Your task to perform on an android device: turn on wifi Image 0: 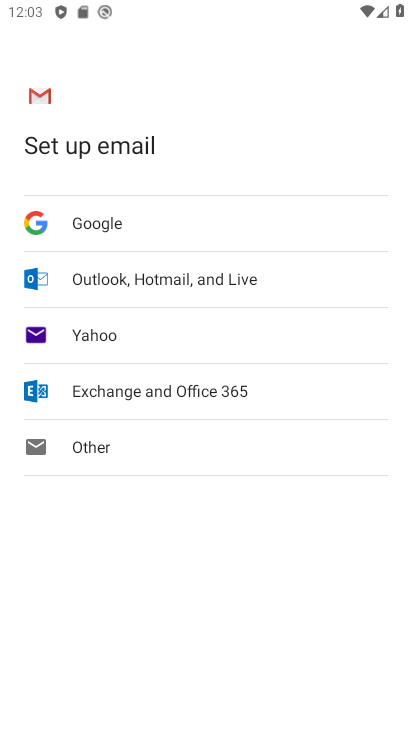
Step 0: press home button
Your task to perform on an android device: turn on wifi Image 1: 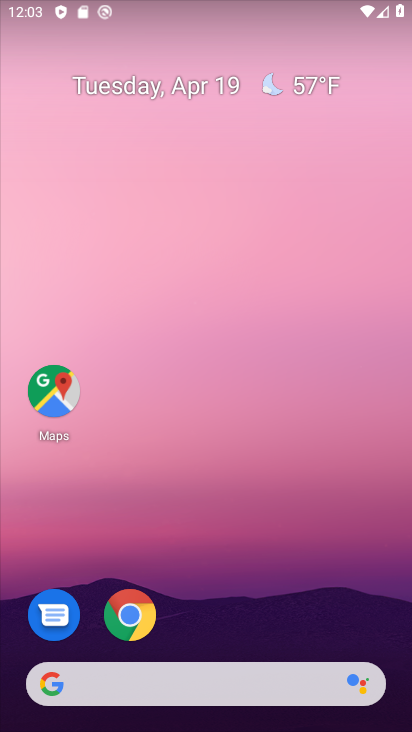
Step 1: drag from (196, 456) to (196, 140)
Your task to perform on an android device: turn on wifi Image 2: 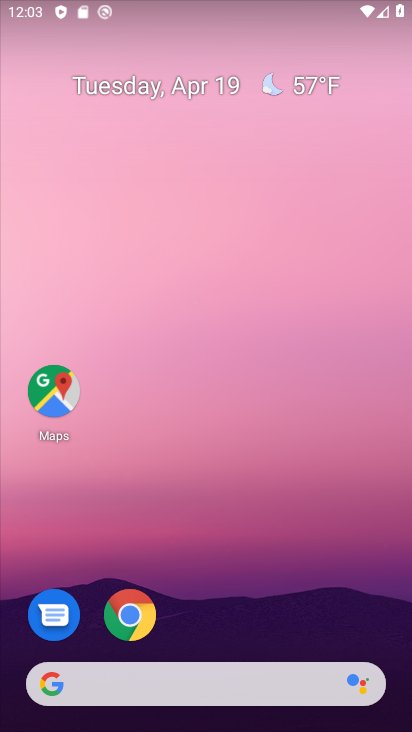
Step 2: drag from (226, 630) to (233, 89)
Your task to perform on an android device: turn on wifi Image 3: 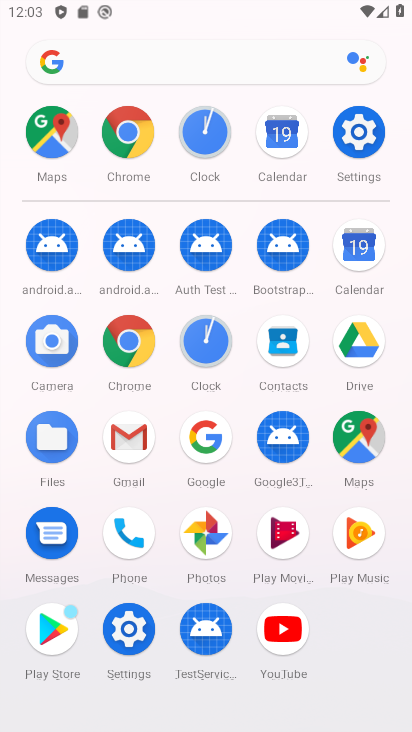
Step 3: click (362, 138)
Your task to perform on an android device: turn on wifi Image 4: 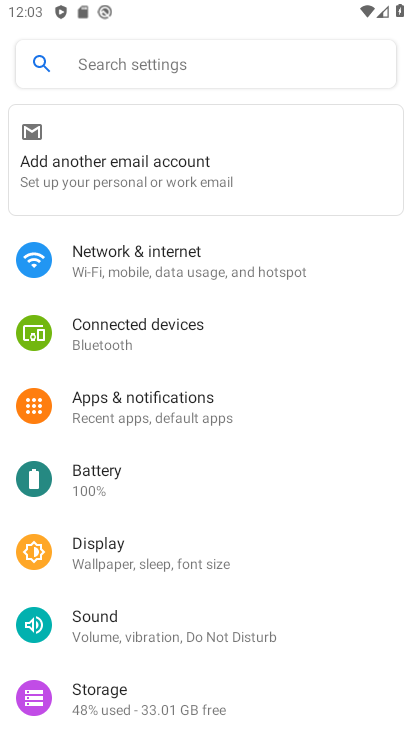
Step 4: click (159, 250)
Your task to perform on an android device: turn on wifi Image 5: 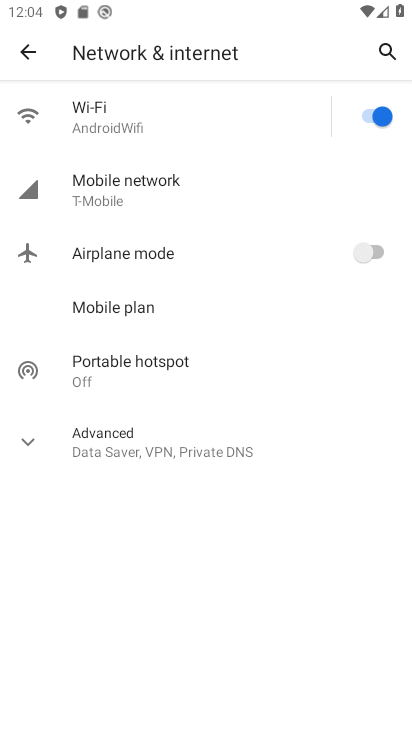
Step 5: task complete